Your task to perform on an android device: Open settings on Google Maps Image 0: 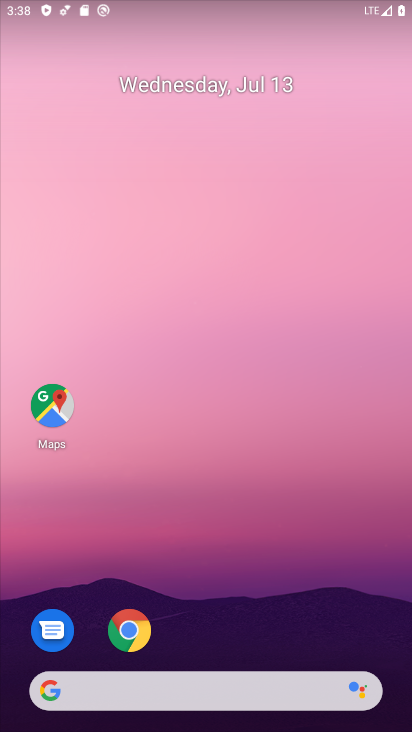
Step 0: click (53, 401)
Your task to perform on an android device: Open settings on Google Maps Image 1: 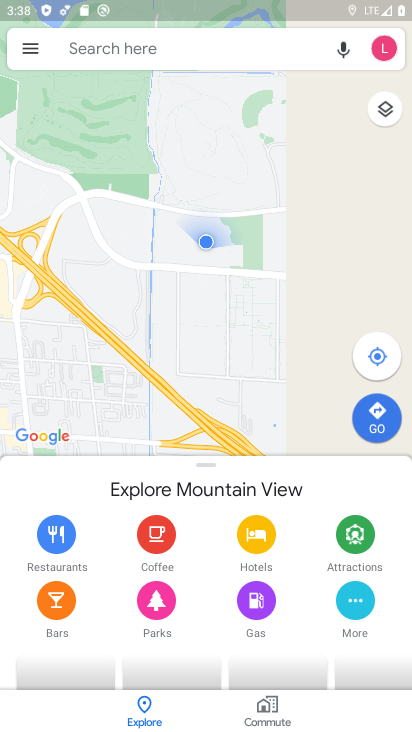
Step 1: click (25, 51)
Your task to perform on an android device: Open settings on Google Maps Image 2: 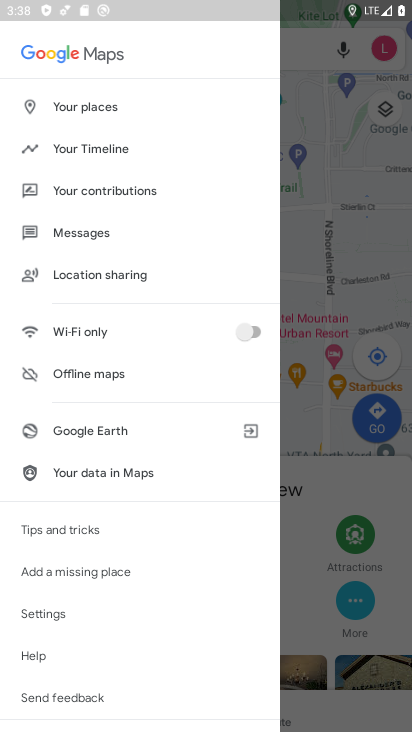
Step 2: click (41, 613)
Your task to perform on an android device: Open settings on Google Maps Image 3: 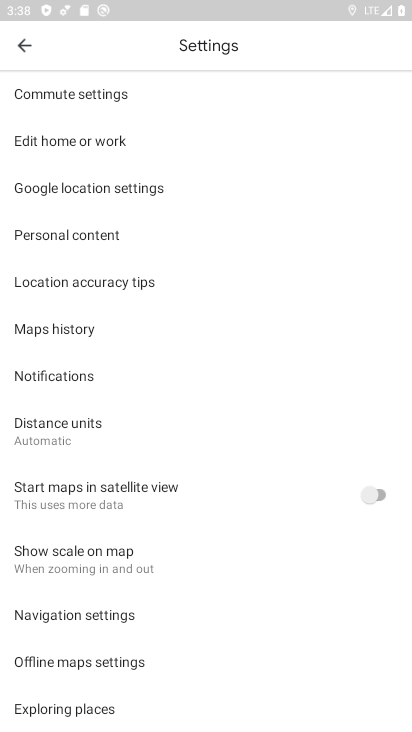
Step 3: task complete